Your task to perform on an android device: Open Amazon Image 0: 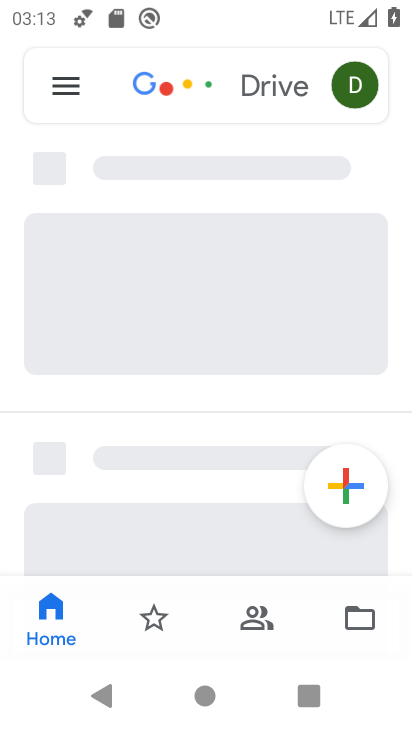
Step 0: press home button
Your task to perform on an android device: Open Amazon Image 1: 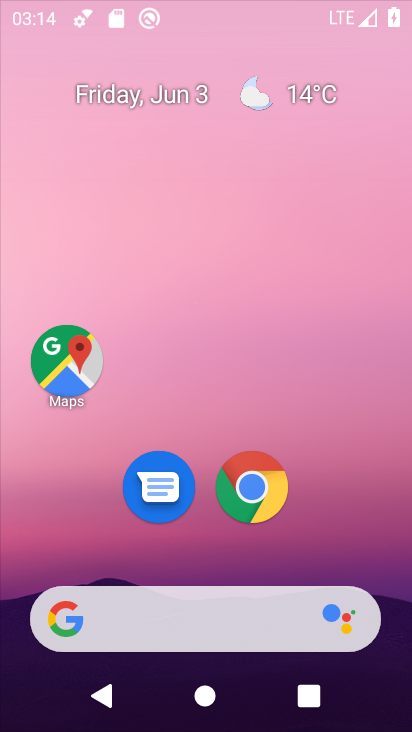
Step 1: click (281, 463)
Your task to perform on an android device: Open Amazon Image 2: 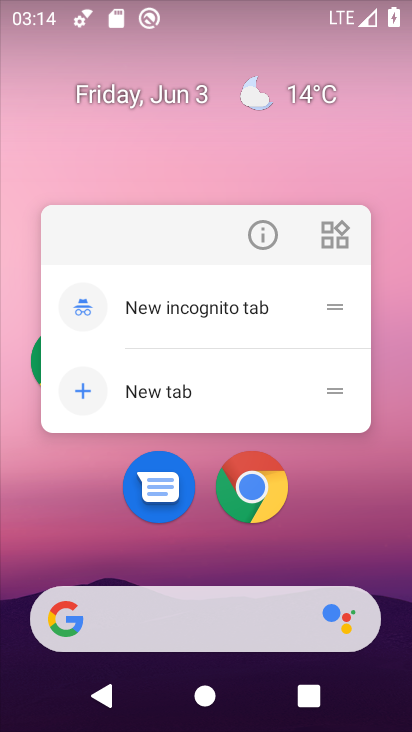
Step 2: click (253, 488)
Your task to perform on an android device: Open Amazon Image 3: 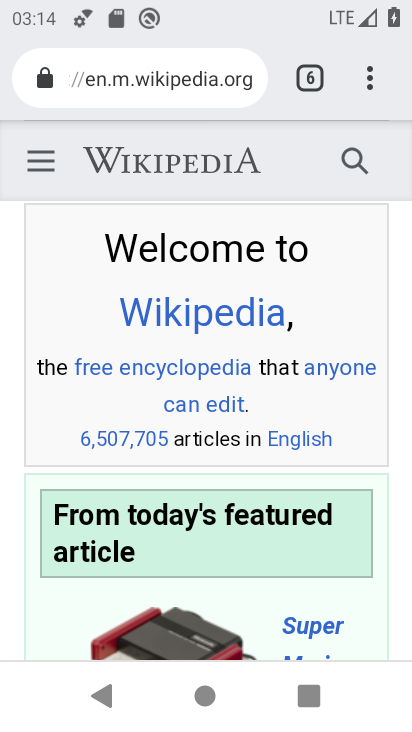
Step 3: click (300, 72)
Your task to perform on an android device: Open Amazon Image 4: 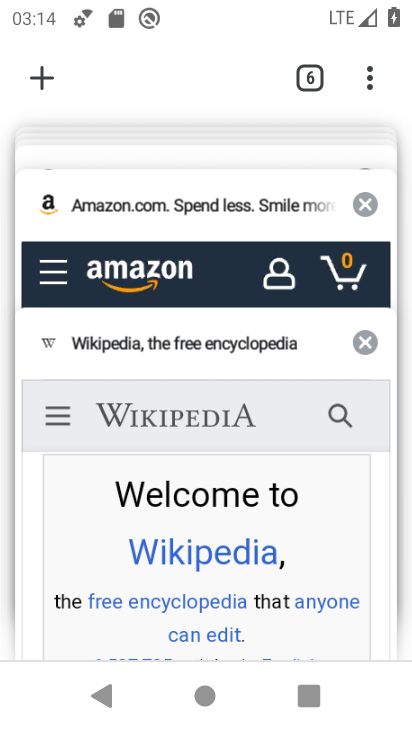
Step 4: click (36, 67)
Your task to perform on an android device: Open Amazon Image 5: 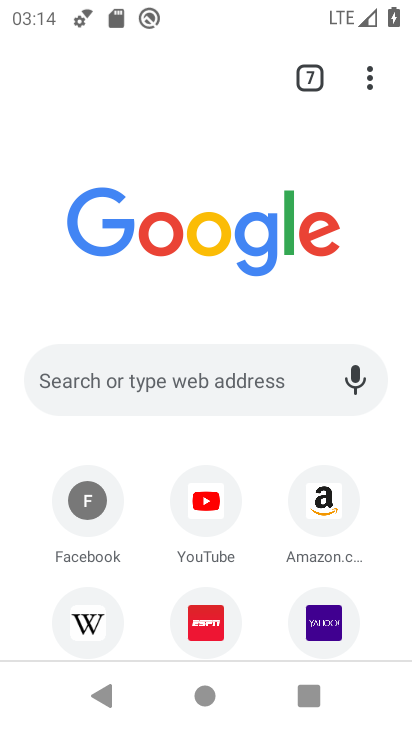
Step 5: click (336, 493)
Your task to perform on an android device: Open Amazon Image 6: 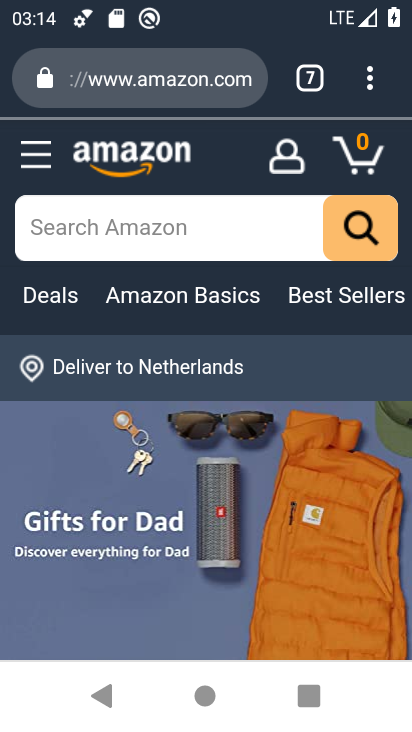
Step 6: task complete